Your task to perform on an android device: open app "Pluto TV - Live TV and Movies" Image 0: 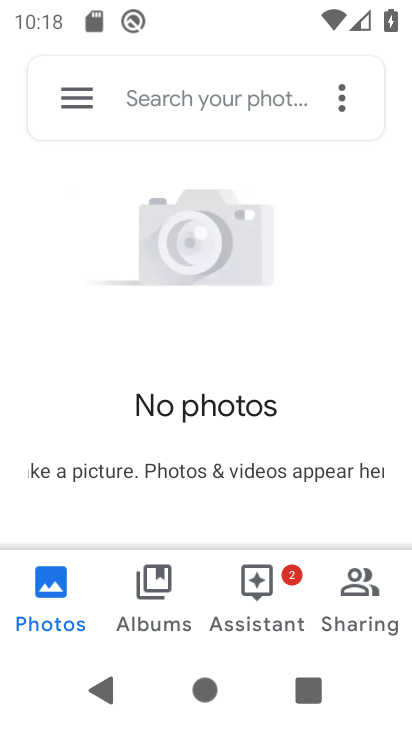
Step 0: press home button
Your task to perform on an android device: open app "Pluto TV - Live TV and Movies" Image 1: 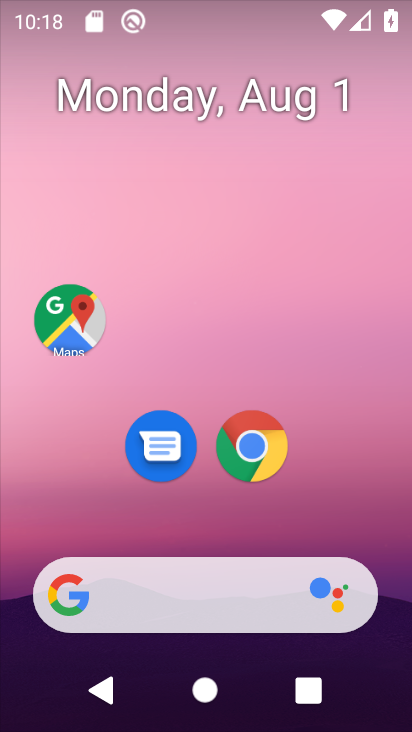
Step 1: drag from (220, 523) to (248, 79)
Your task to perform on an android device: open app "Pluto TV - Live TV and Movies" Image 2: 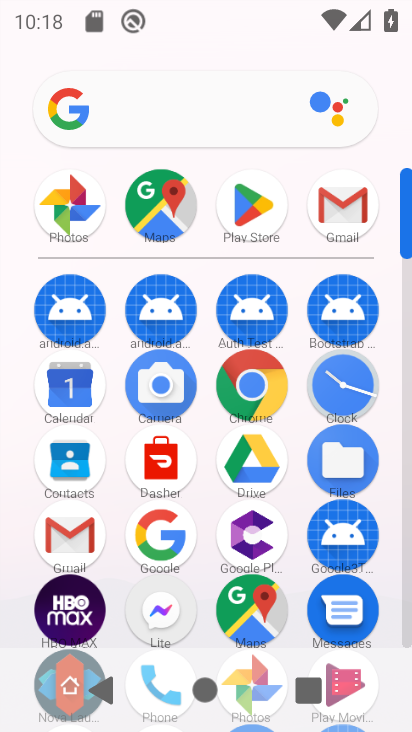
Step 2: click (262, 194)
Your task to perform on an android device: open app "Pluto TV - Live TV and Movies" Image 3: 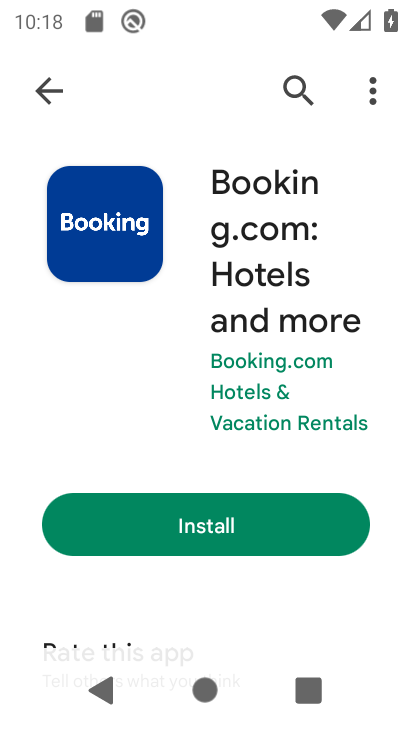
Step 3: click (293, 92)
Your task to perform on an android device: open app "Pluto TV - Live TV and Movies" Image 4: 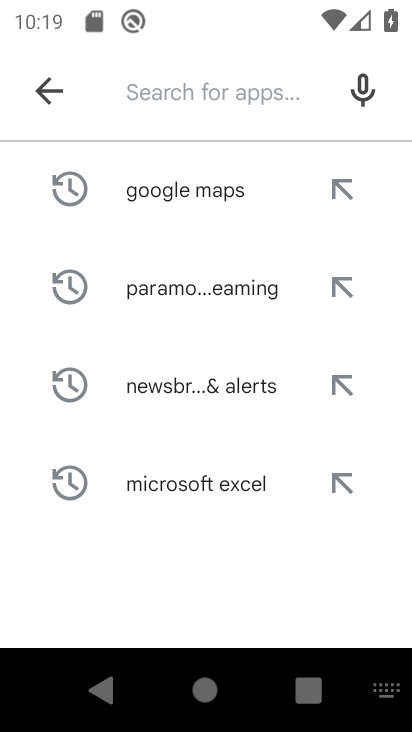
Step 4: type "Pluto TV - Live TV and Movies"
Your task to perform on an android device: open app "Pluto TV - Live TV and Movies" Image 5: 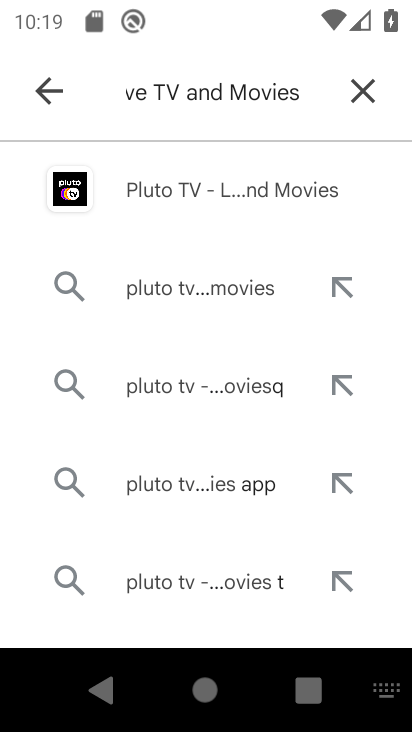
Step 5: click (284, 199)
Your task to perform on an android device: open app "Pluto TV - Live TV and Movies" Image 6: 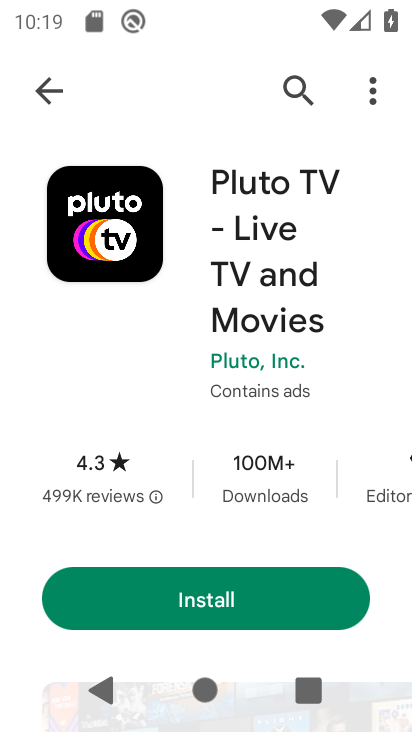
Step 6: task complete